Your task to perform on an android device: Open calendar and show me the first week of next month Image 0: 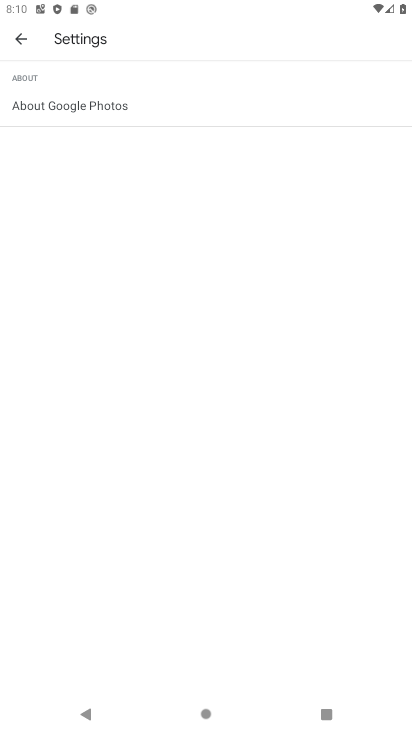
Step 0: press home button
Your task to perform on an android device: Open calendar and show me the first week of next month Image 1: 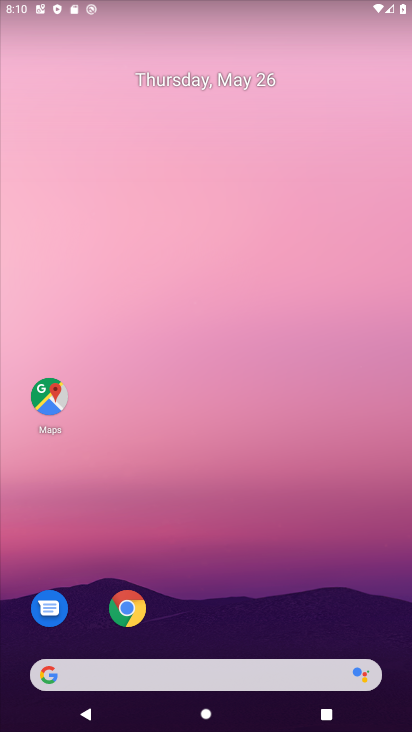
Step 1: drag from (140, 712) to (154, 66)
Your task to perform on an android device: Open calendar and show me the first week of next month Image 2: 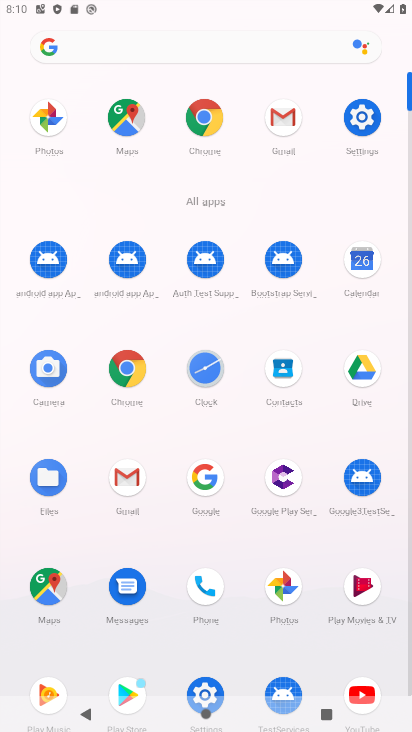
Step 2: click (354, 271)
Your task to perform on an android device: Open calendar and show me the first week of next month Image 3: 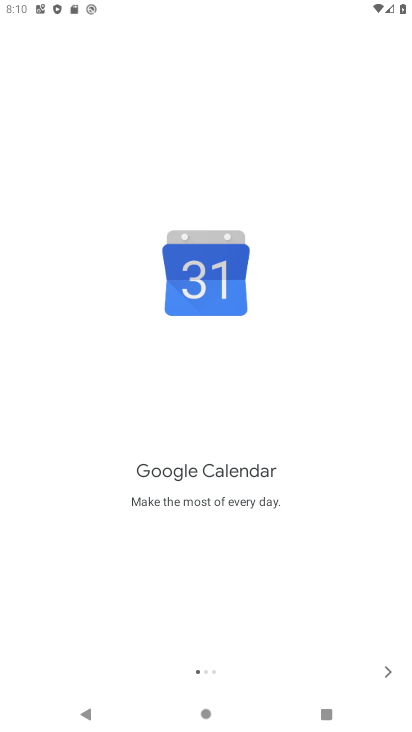
Step 3: click (382, 670)
Your task to perform on an android device: Open calendar and show me the first week of next month Image 4: 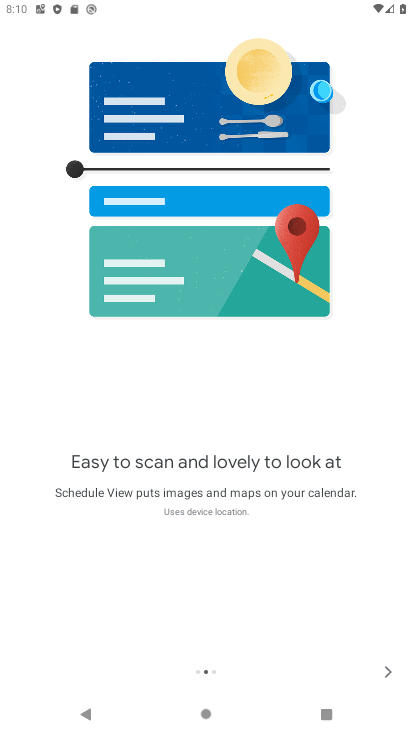
Step 4: click (383, 670)
Your task to perform on an android device: Open calendar and show me the first week of next month Image 5: 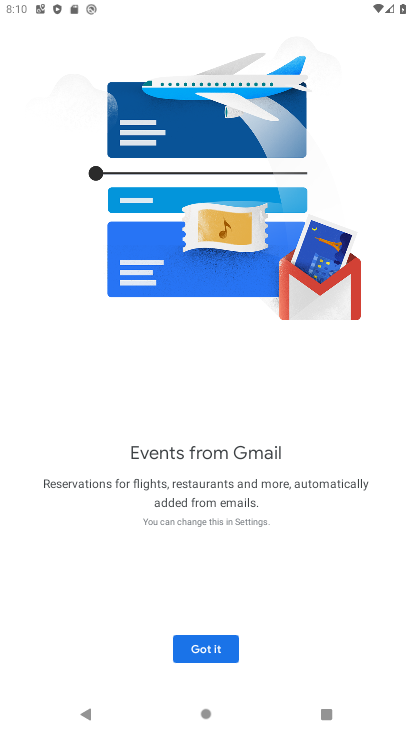
Step 5: click (214, 653)
Your task to perform on an android device: Open calendar and show me the first week of next month Image 6: 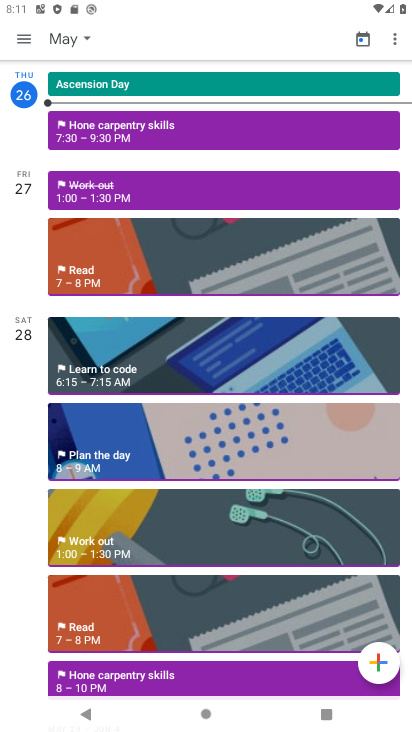
Step 6: click (27, 44)
Your task to perform on an android device: Open calendar and show me the first week of next month Image 7: 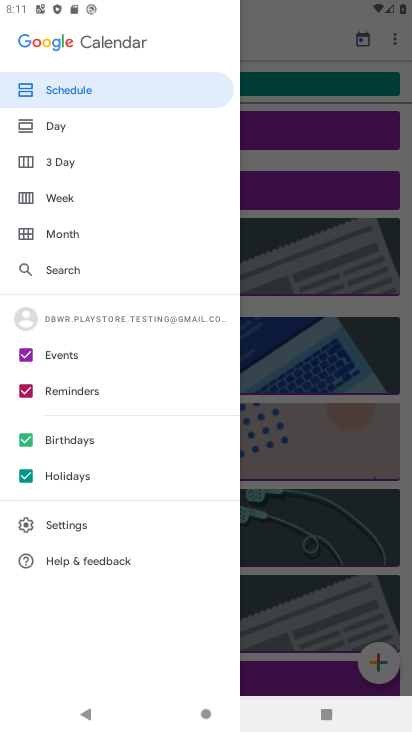
Step 7: click (67, 205)
Your task to perform on an android device: Open calendar and show me the first week of next month Image 8: 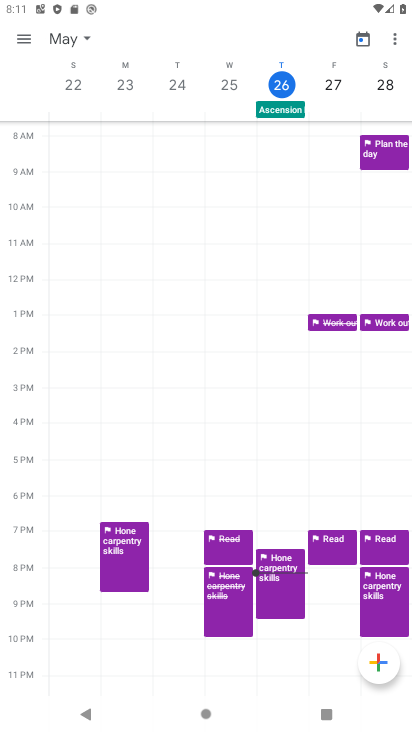
Step 8: click (81, 34)
Your task to perform on an android device: Open calendar and show me the first week of next month Image 9: 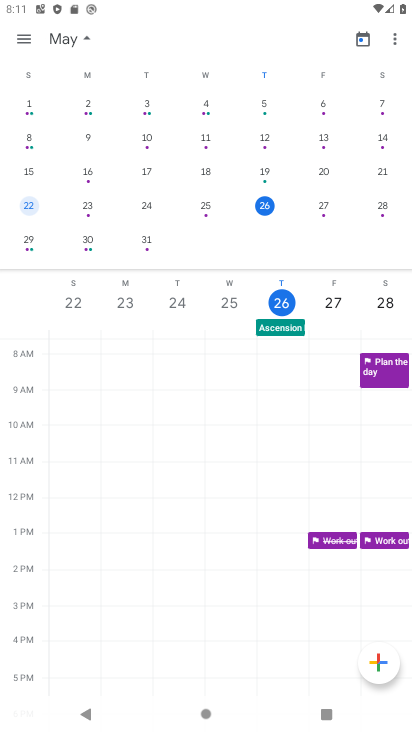
Step 9: drag from (377, 236) to (2, 173)
Your task to perform on an android device: Open calendar and show me the first week of next month Image 10: 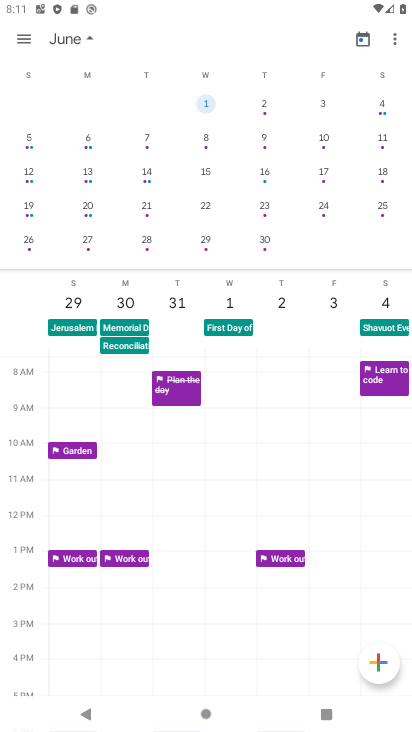
Step 10: click (84, 31)
Your task to perform on an android device: Open calendar and show me the first week of next month Image 11: 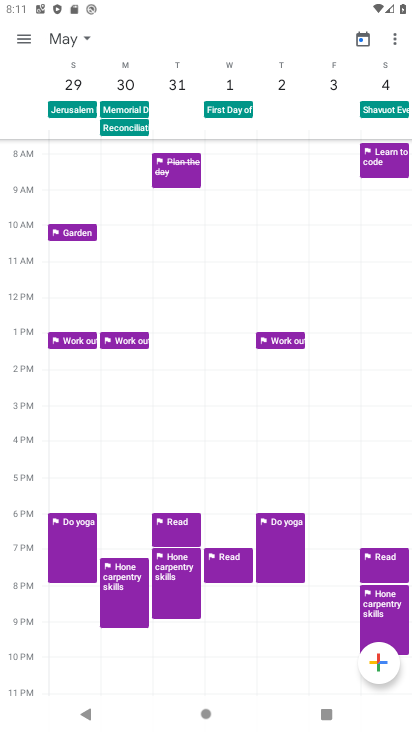
Step 11: task complete